Your task to perform on an android device: set the stopwatch Image 0: 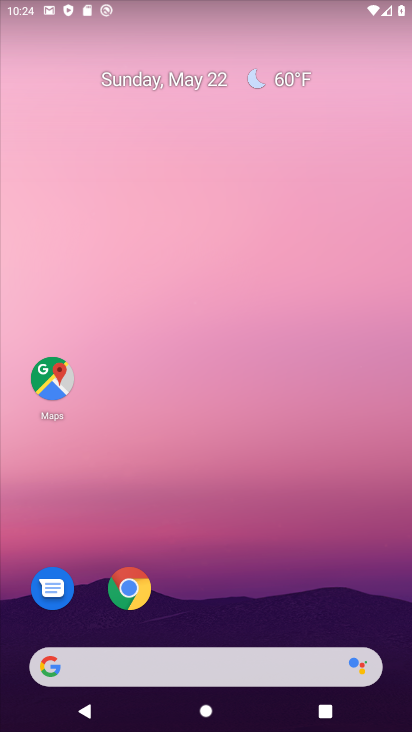
Step 0: drag from (262, 604) to (207, 78)
Your task to perform on an android device: set the stopwatch Image 1: 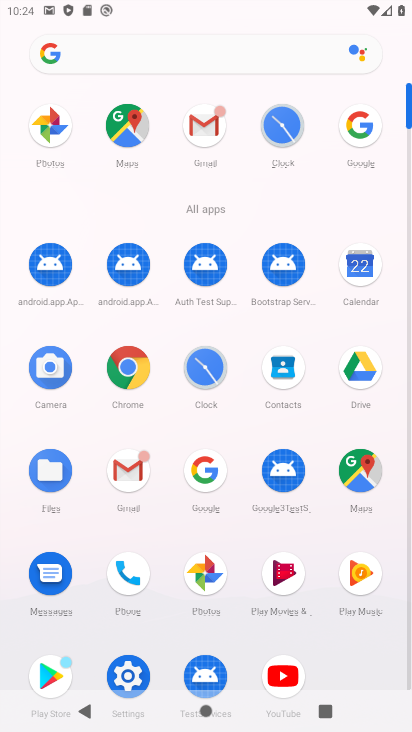
Step 1: drag from (165, 641) to (178, 392)
Your task to perform on an android device: set the stopwatch Image 2: 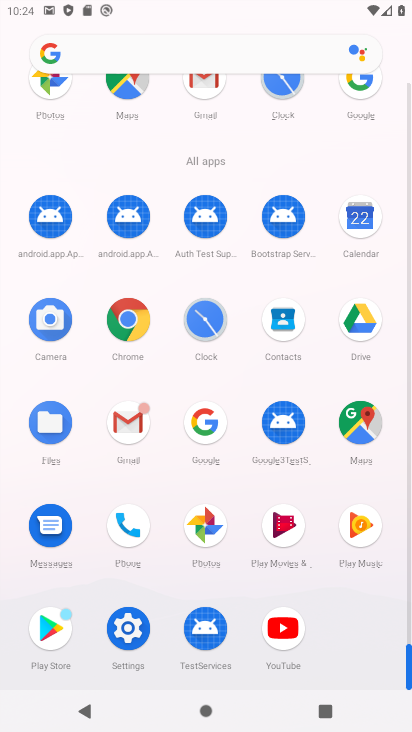
Step 2: click (206, 318)
Your task to perform on an android device: set the stopwatch Image 3: 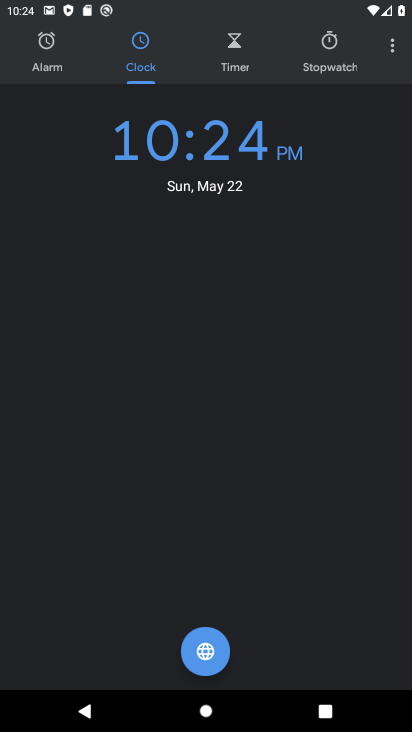
Step 3: click (329, 42)
Your task to perform on an android device: set the stopwatch Image 4: 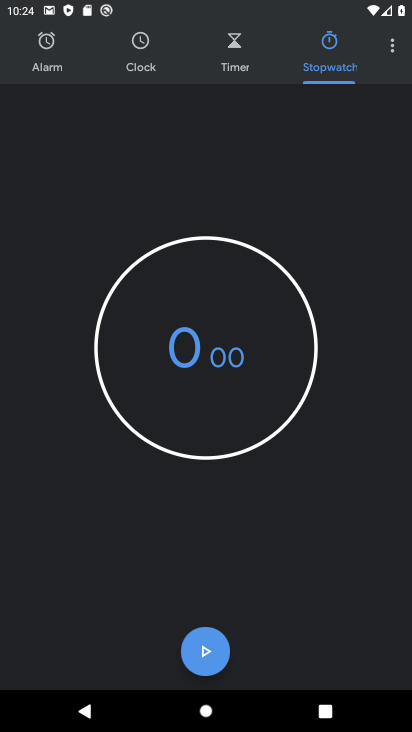
Step 4: click (205, 635)
Your task to perform on an android device: set the stopwatch Image 5: 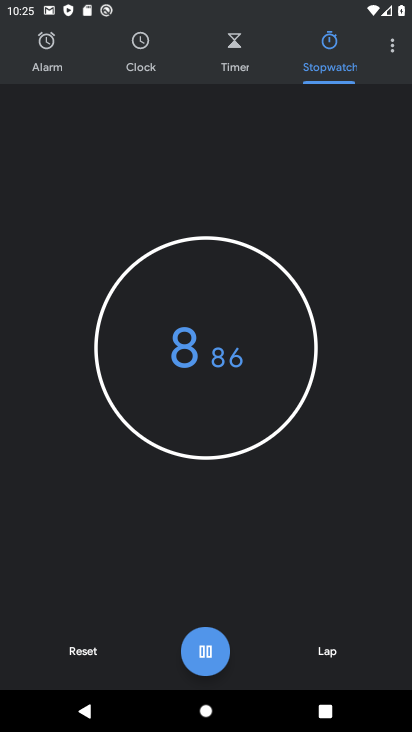
Step 5: click (205, 635)
Your task to perform on an android device: set the stopwatch Image 6: 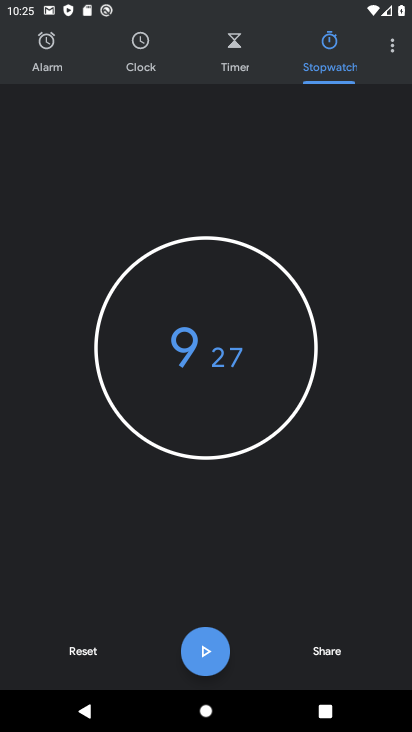
Step 6: task complete